Your task to perform on an android device: turn off priority inbox in the gmail app Image 0: 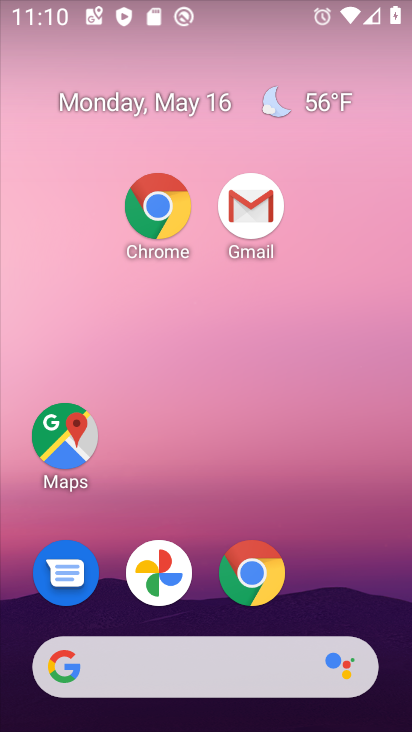
Step 0: click (137, 143)
Your task to perform on an android device: turn off priority inbox in the gmail app Image 1: 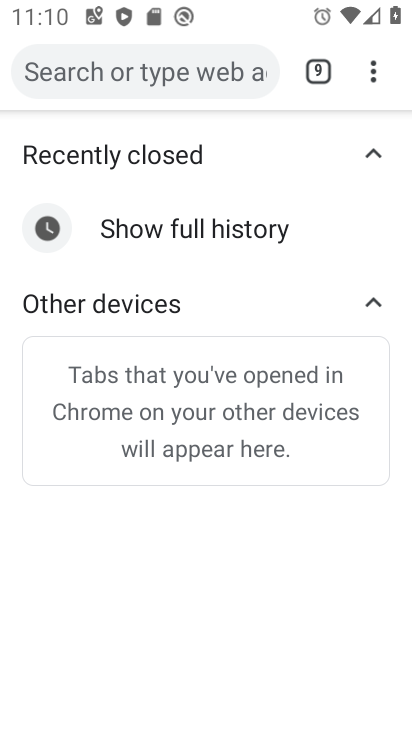
Step 1: press back button
Your task to perform on an android device: turn off priority inbox in the gmail app Image 2: 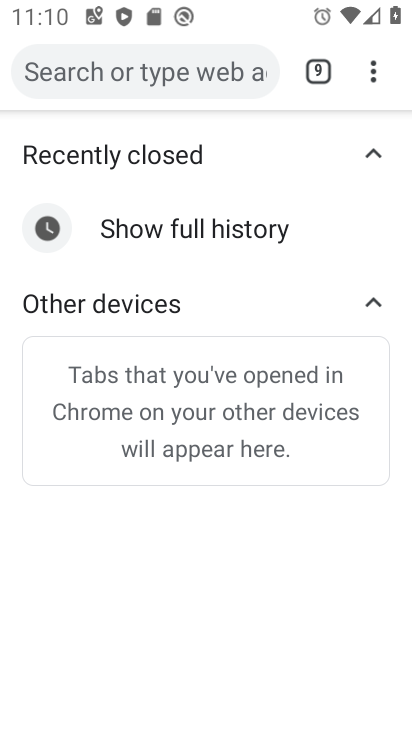
Step 2: press back button
Your task to perform on an android device: turn off priority inbox in the gmail app Image 3: 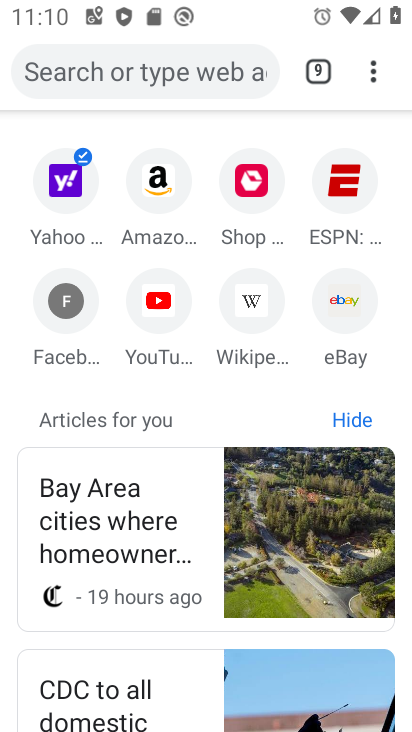
Step 3: click (370, 72)
Your task to perform on an android device: turn off priority inbox in the gmail app Image 4: 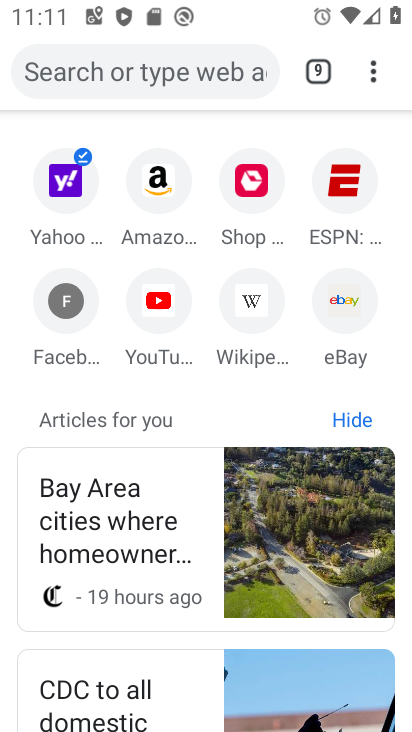
Step 4: press home button
Your task to perform on an android device: turn off priority inbox in the gmail app Image 5: 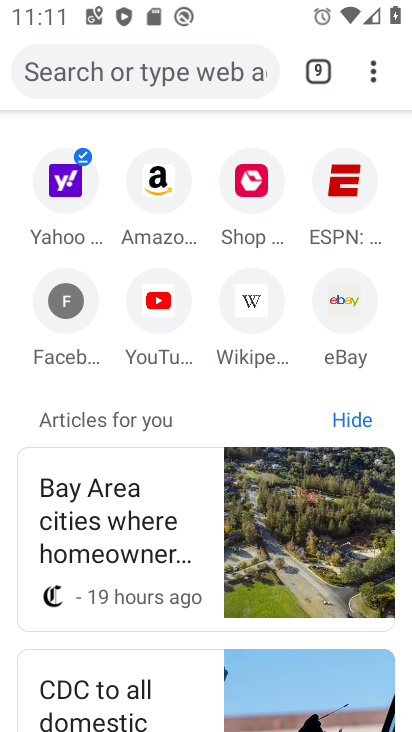
Step 5: press home button
Your task to perform on an android device: turn off priority inbox in the gmail app Image 6: 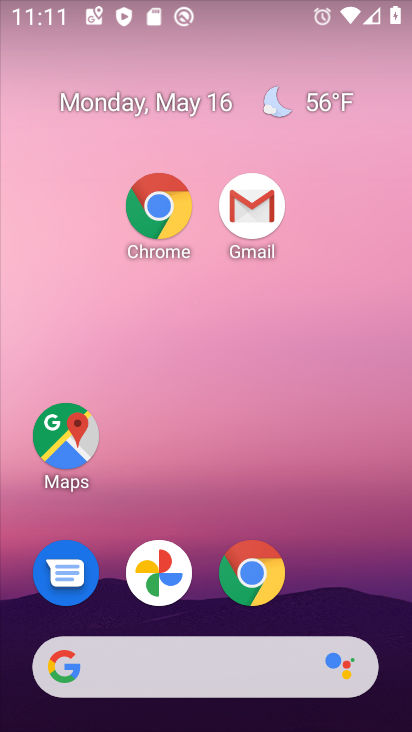
Step 6: drag from (338, 570) to (405, 331)
Your task to perform on an android device: turn off priority inbox in the gmail app Image 7: 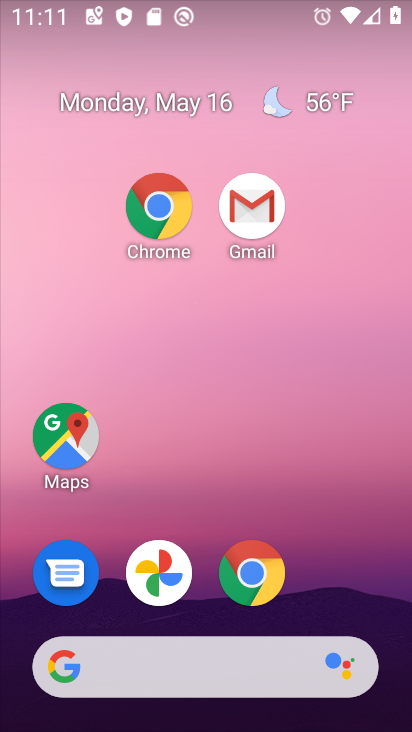
Step 7: drag from (363, 608) to (157, 0)
Your task to perform on an android device: turn off priority inbox in the gmail app Image 8: 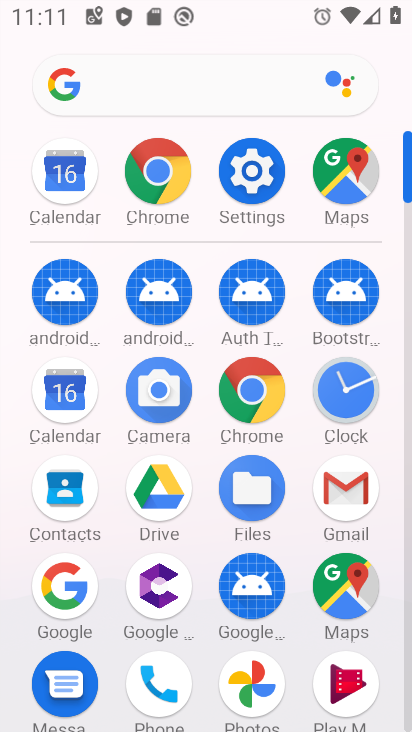
Step 8: click (325, 564)
Your task to perform on an android device: turn off priority inbox in the gmail app Image 9: 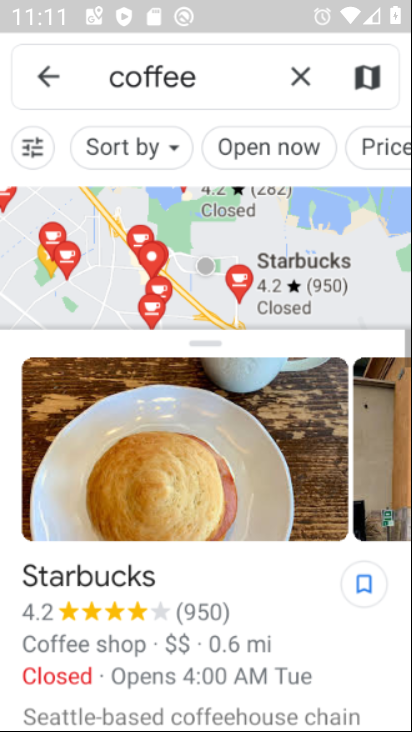
Step 9: click (338, 491)
Your task to perform on an android device: turn off priority inbox in the gmail app Image 10: 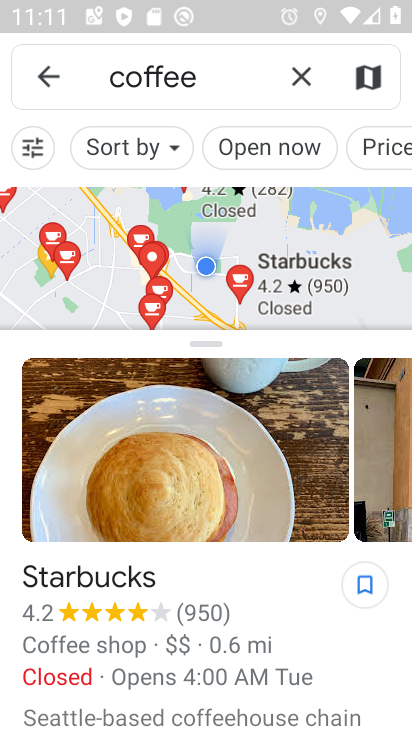
Step 10: click (38, 68)
Your task to perform on an android device: turn off priority inbox in the gmail app Image 11: 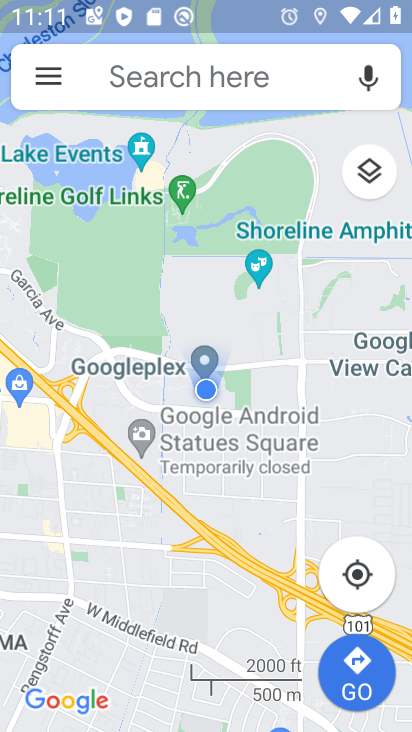
Step 11: press back button
Your task to perform on an android device: turn off priority inbox in the gmail app Image 12: 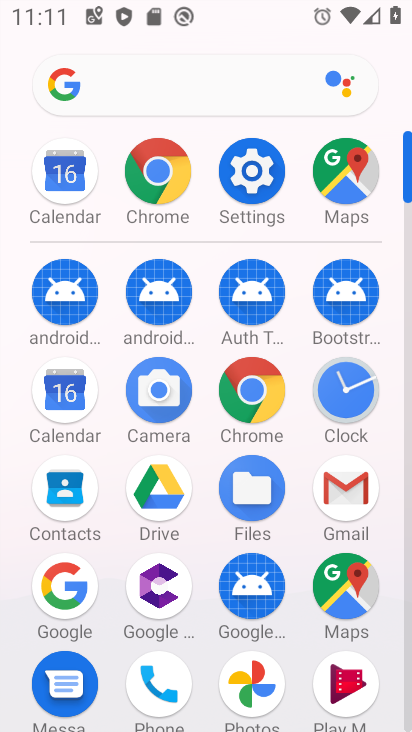
Step 12: click (349, 507)
Your task to perform on an android device: turn off priority inbox in the gmail app Image 13: 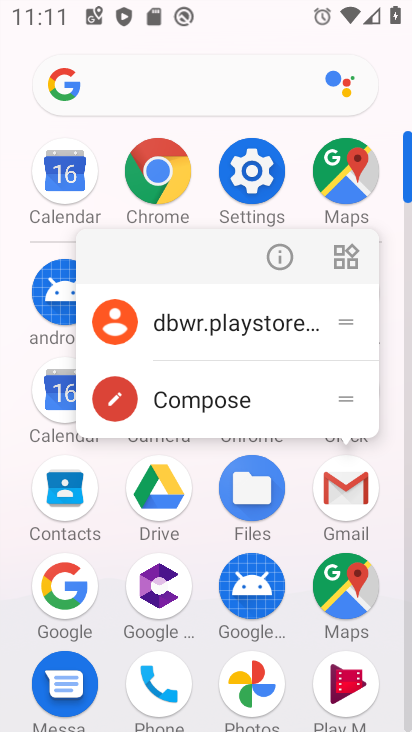
Step 13: click (334, 485)
Your task to perform on an android device: turn off priority inbox in the gmail app Image 14: 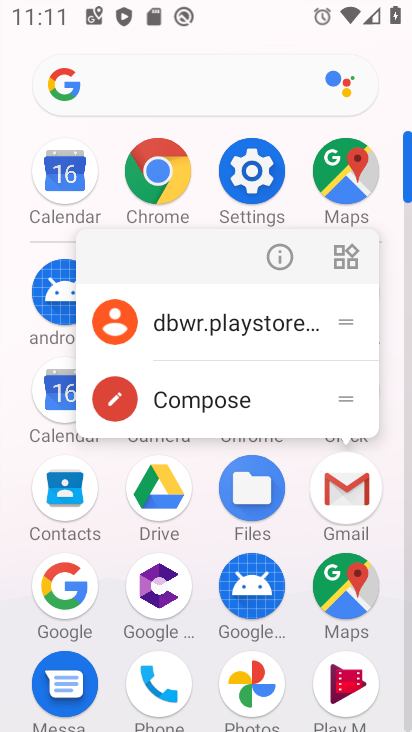
Step 14: click (334, 485)
Your task to perform on an android device: turn off priority inbox in the gmail app Image 15: 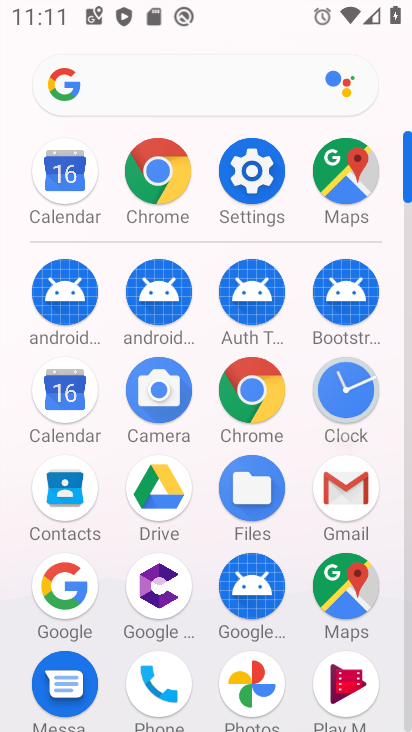
Step 15: click (334, 485)
Your task to perform on an android device: turn off priority inbox in the gmail app Image 16: 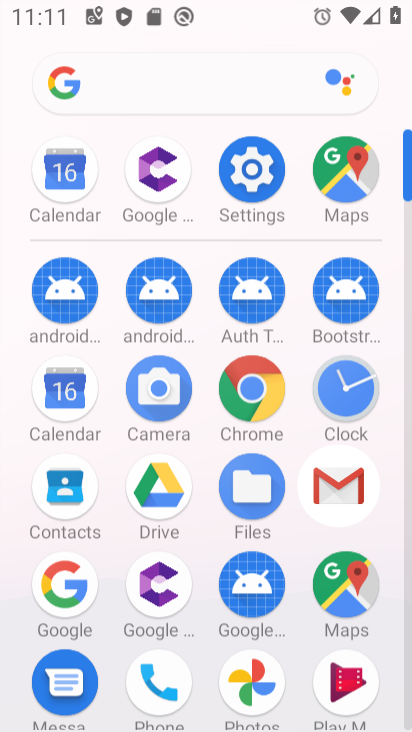
Step 16: click (334, 485)
Your task to perform on an android device: turn off priority inbox in the gmail app Image 17: 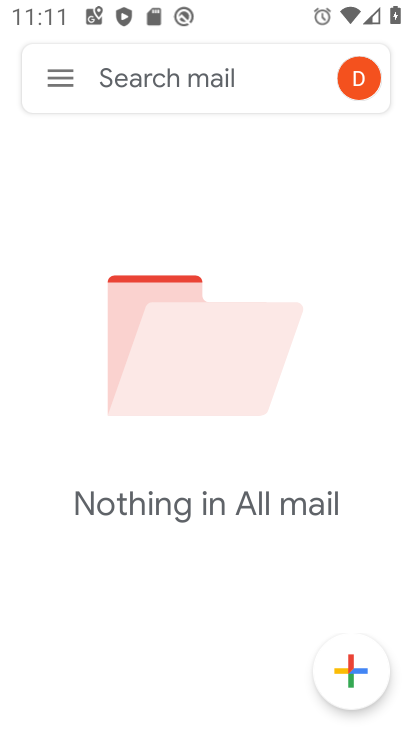
Step 17: click (53, 80)
Your task to perform on an android device: turn off priority inbox in the gmail app Image 18: 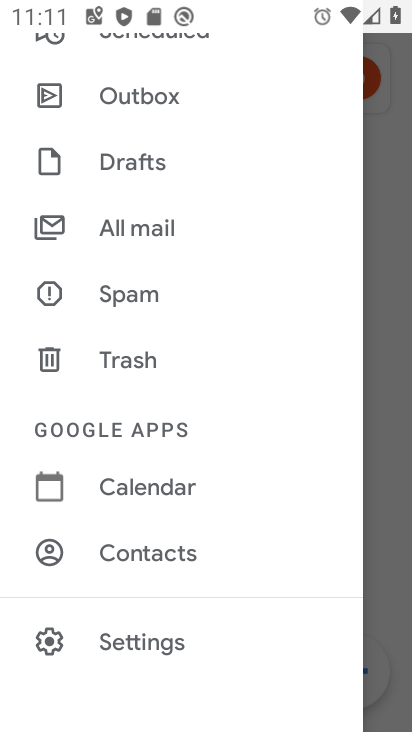
Step 18: click (134, 630)
Your task to perform on an android device: turn off priority inbox in the gmail app Image 19: 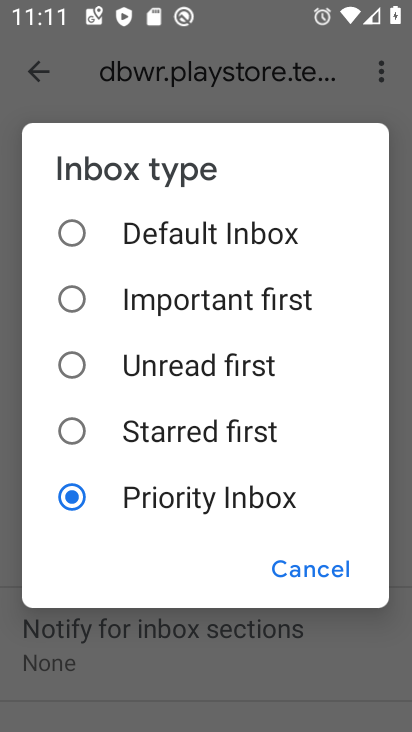
Step 19: click (76, 243)
Your task to perform on an android device: turn off priority inbox in the gmail app Image 20: 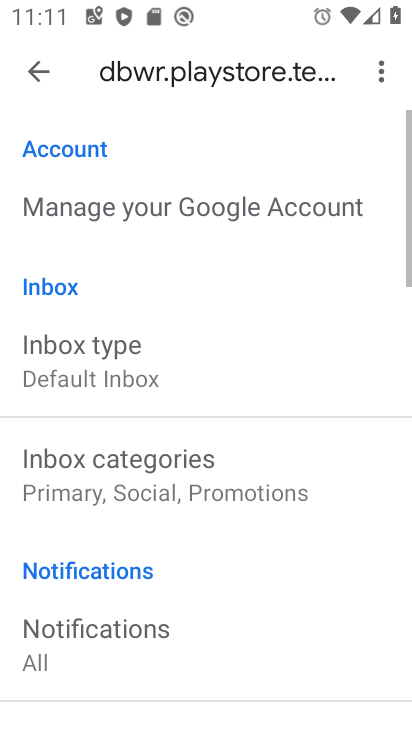
Step 20: click (75, 239)
Your task to perform on an android device: turn off priority inbox in the gmail app Image 21: 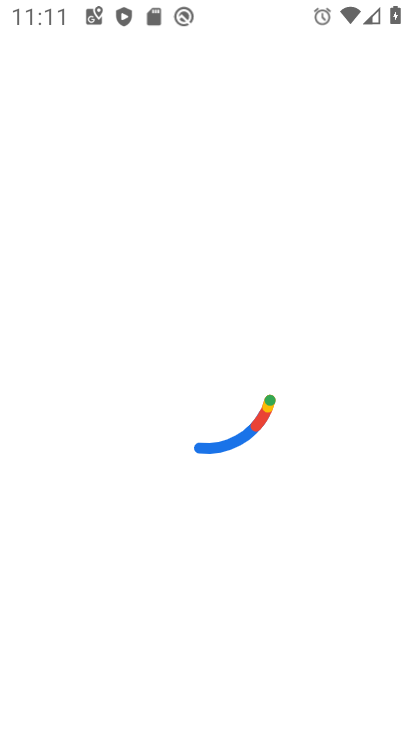
Step 21: task complete